Your task to perform on an android device: Clear the shopping cart on amazon.com. Add lenovo thinkpad to the cart on amazon.com, then select checkout. Image 0: 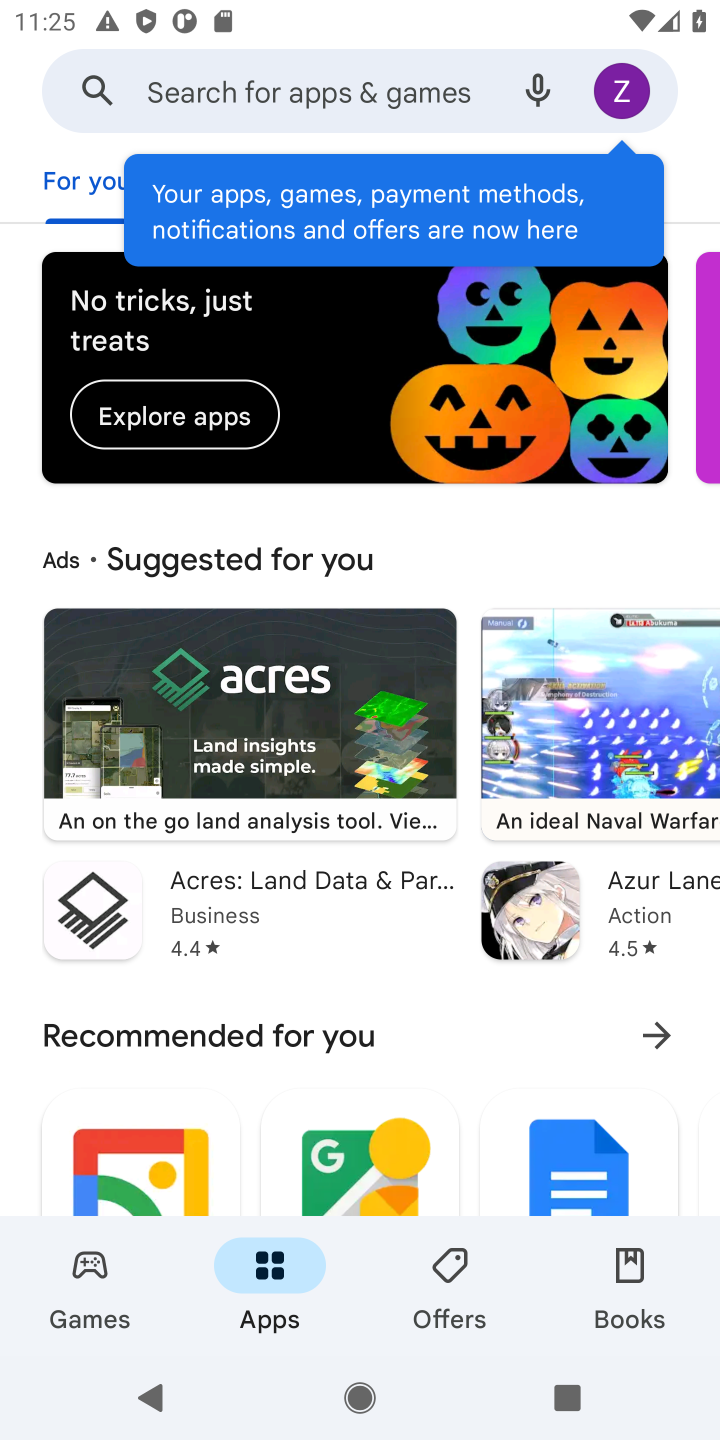
Step 0: press home button
Your task to perform on an android device: Clear the shopping cart on amazon.com. Add lenovo thinkpad to the cart on amazon.com, then select checkout. Image 1: 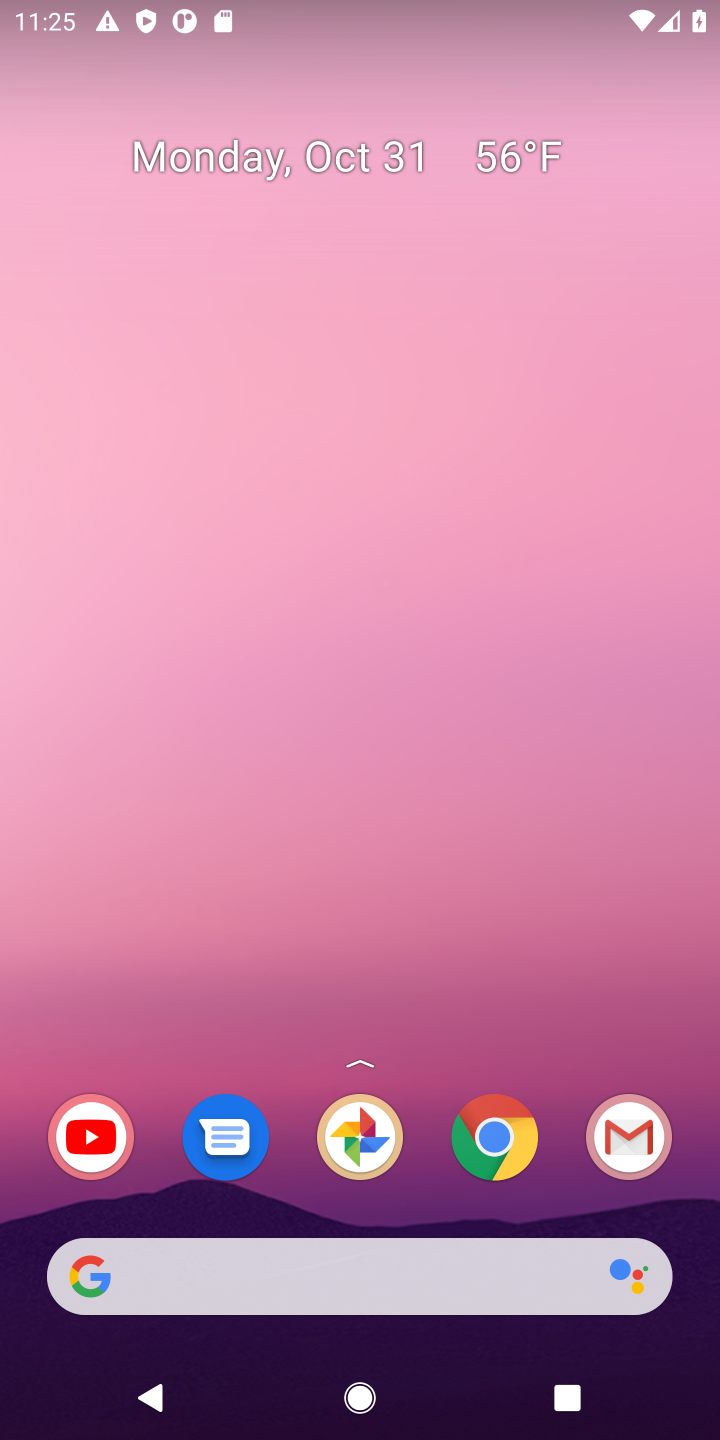
Step 1: click (492, 1137)
Your task to perform on an android device: Clear the shopping cart on amazon.com. Add lenovo thinkpad to the cart on amazon.com, then select checkout. Image 2: 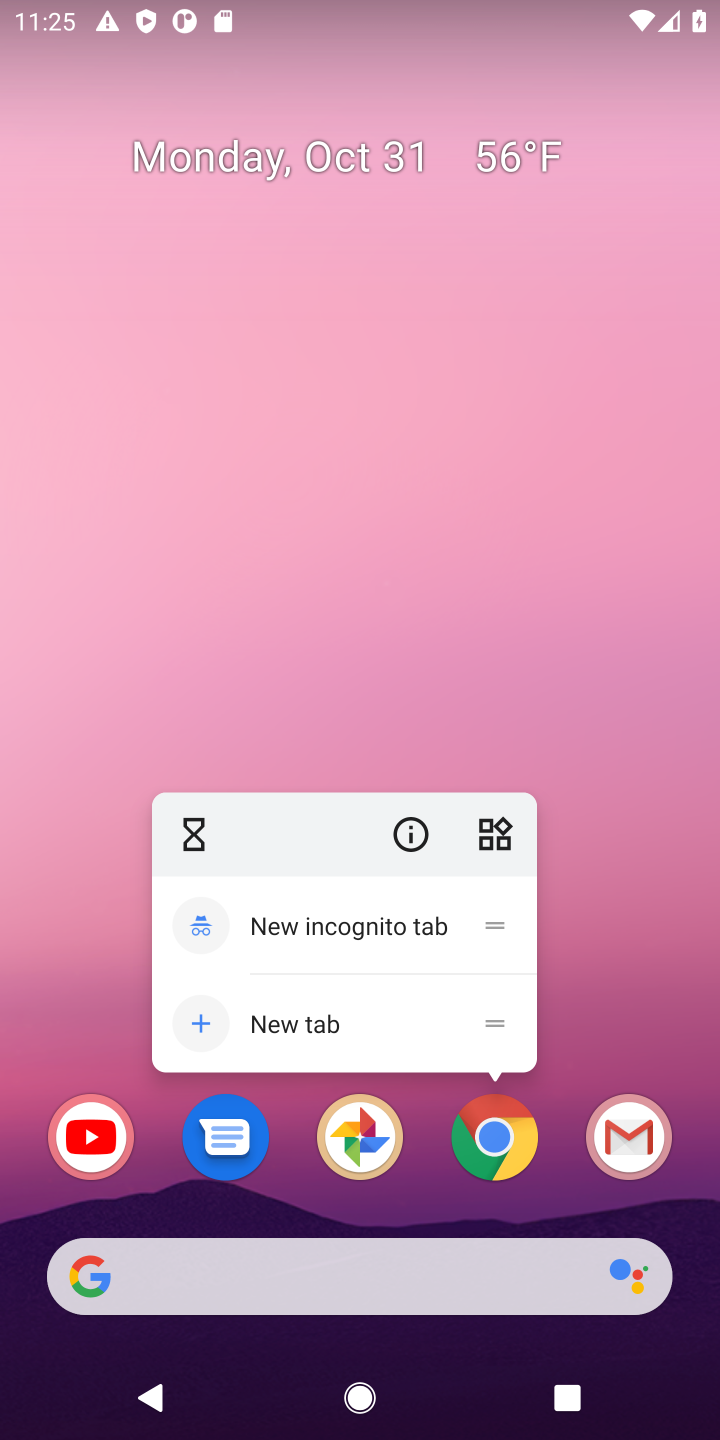
Step 2: click (497, 1137)
Your task to perform on an android device: Clear the shopping cart on amazon.com. Add lenovo thinkpad to the cart on amazon.com, then select checkout. Image 3: 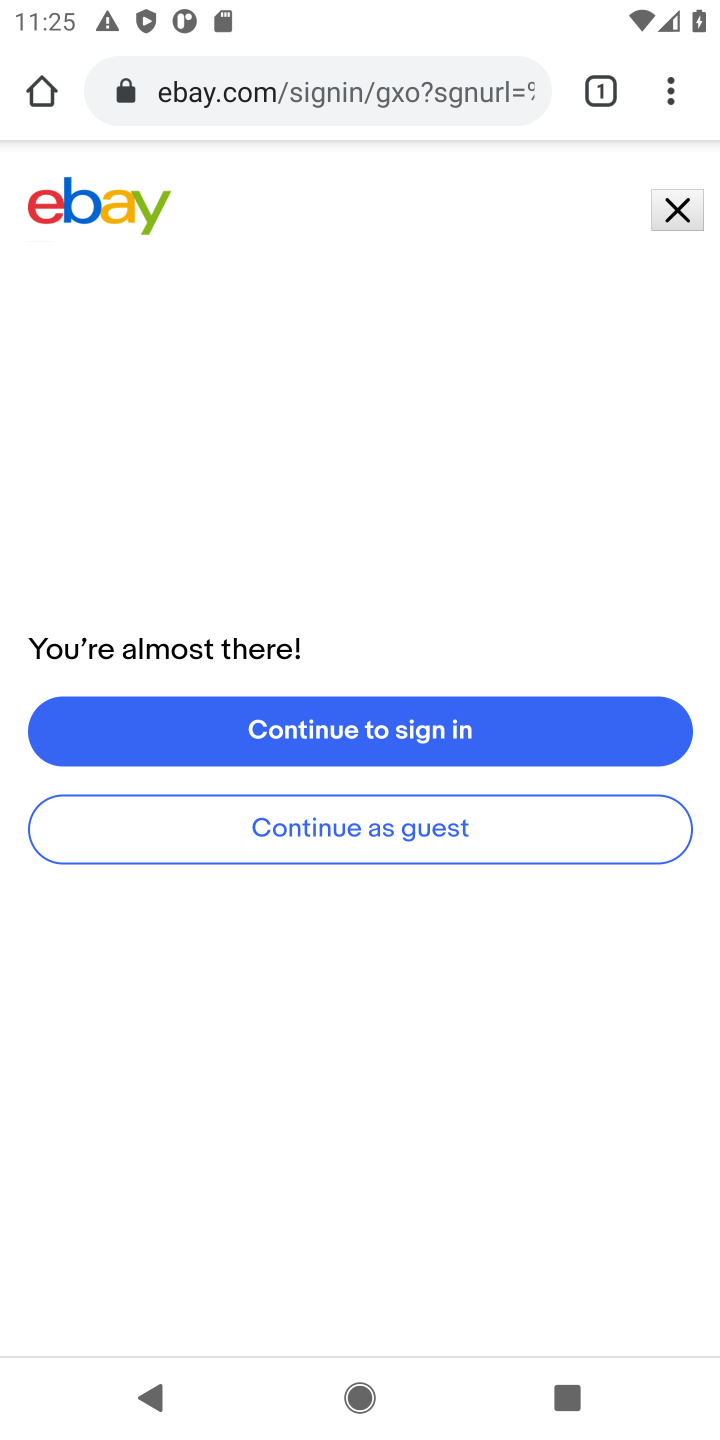
Step 3: click (384, 99)
Your task to perform on an android device: Clear the shopping cart on amazon.com. Add lenovo thinkpad to the cart on amazon.com, then select checkout. Image 4: 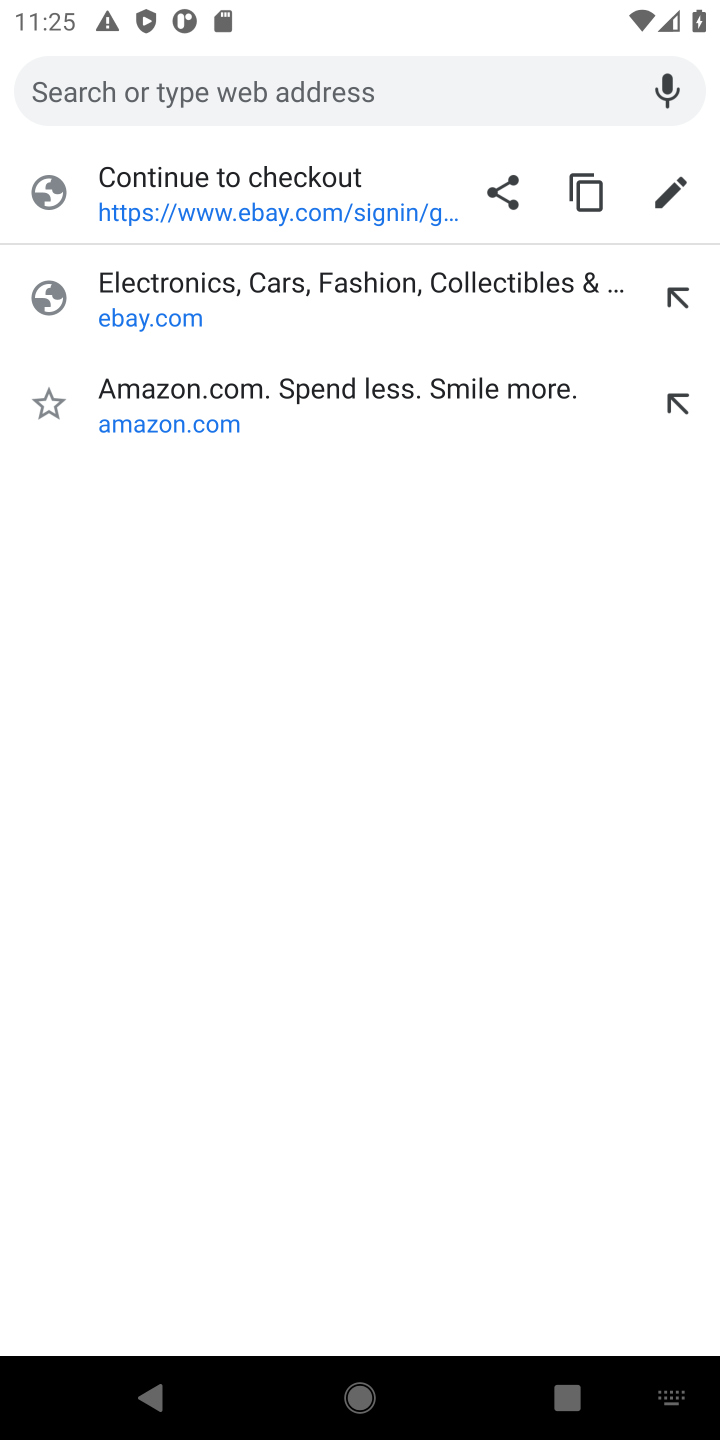
Step 4: type "amazon.com"
Your task to perform on an android device: Clear the shopping cart on amazon.com. Add lenovo thinkpad to the cart on amazon.com, then select checkout. Image 5: 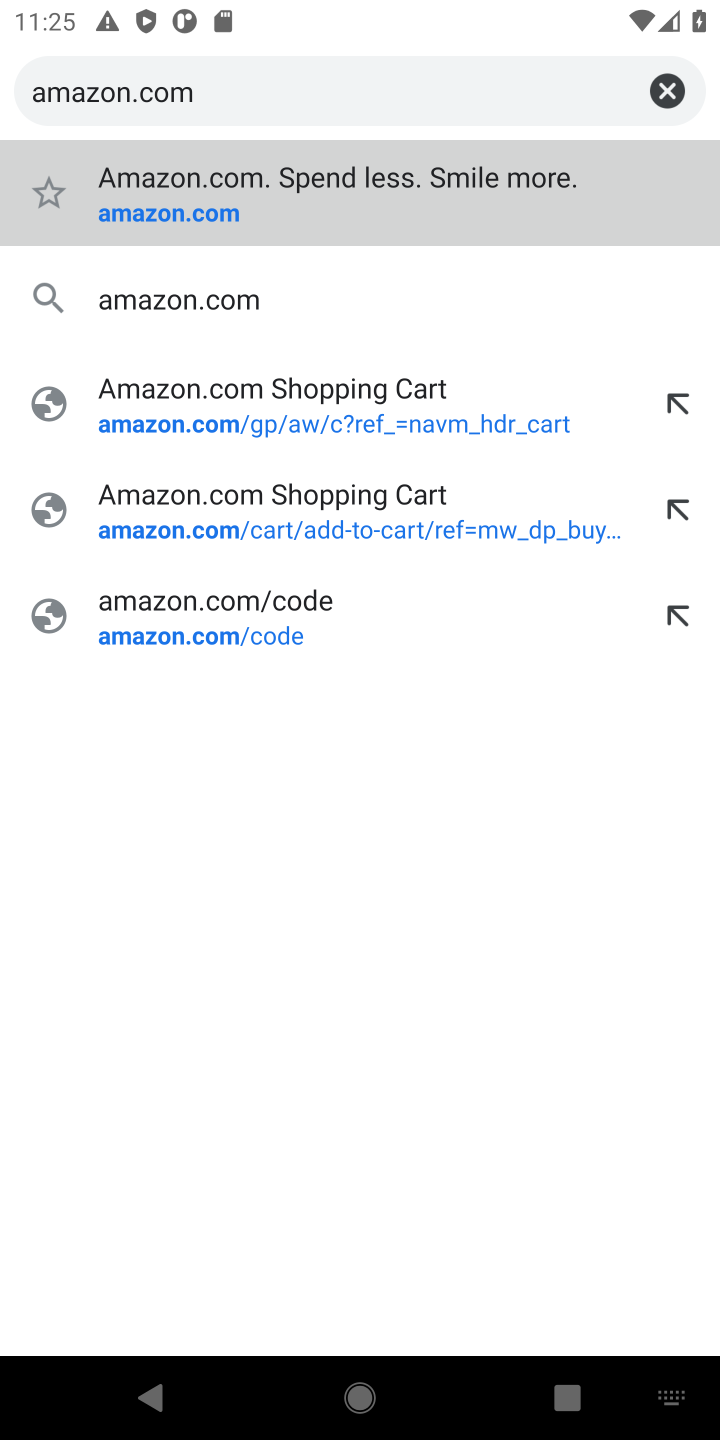
Step 5: click (198, 305)
Your task to perform on an android device: Clear the shopping cart on amazon.com. Add lenovo thinkpad to the cart on amazon.com, then select checkout. Image 6: 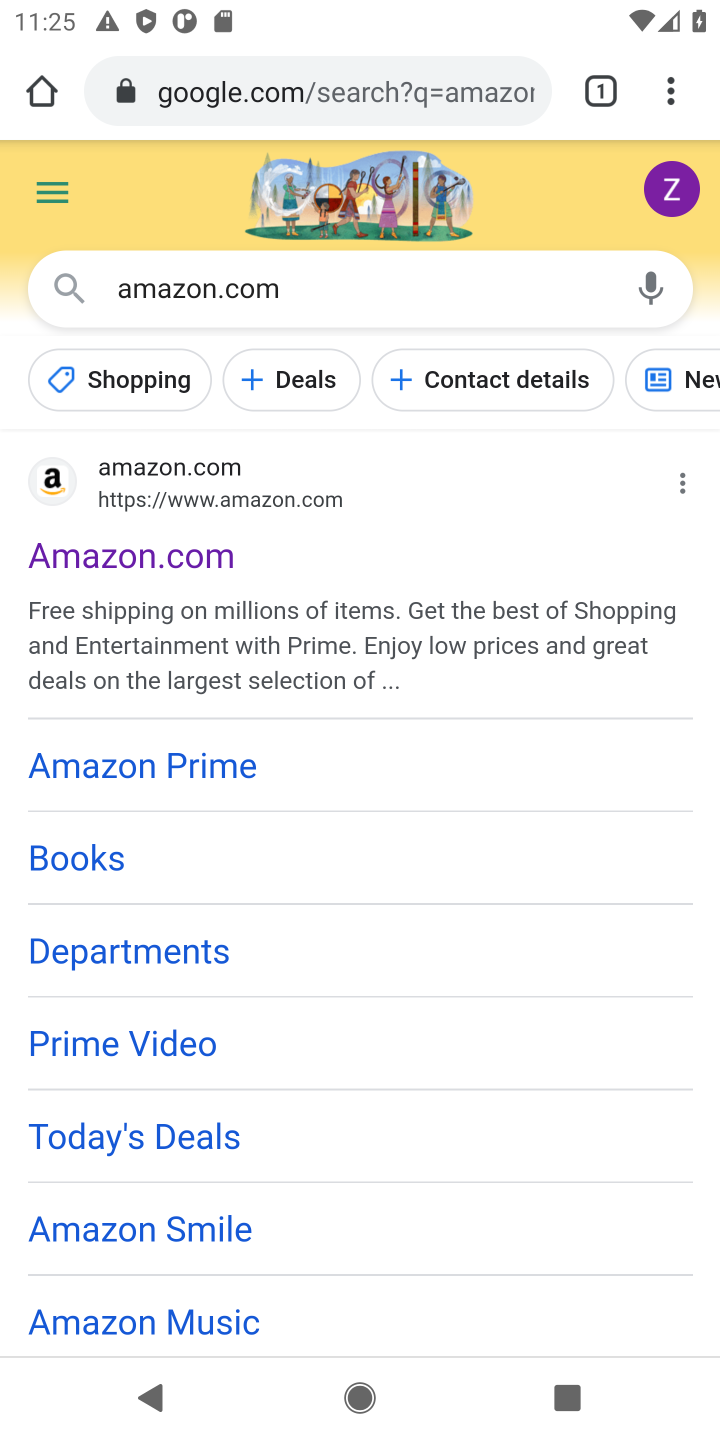
Step 6: click (208, 569)
Your task to perform on an android device: Clear the shopping cart on amazon.com. Add lenovo thinkpad to the cart on amazon.com, then select checkout. Image 7: 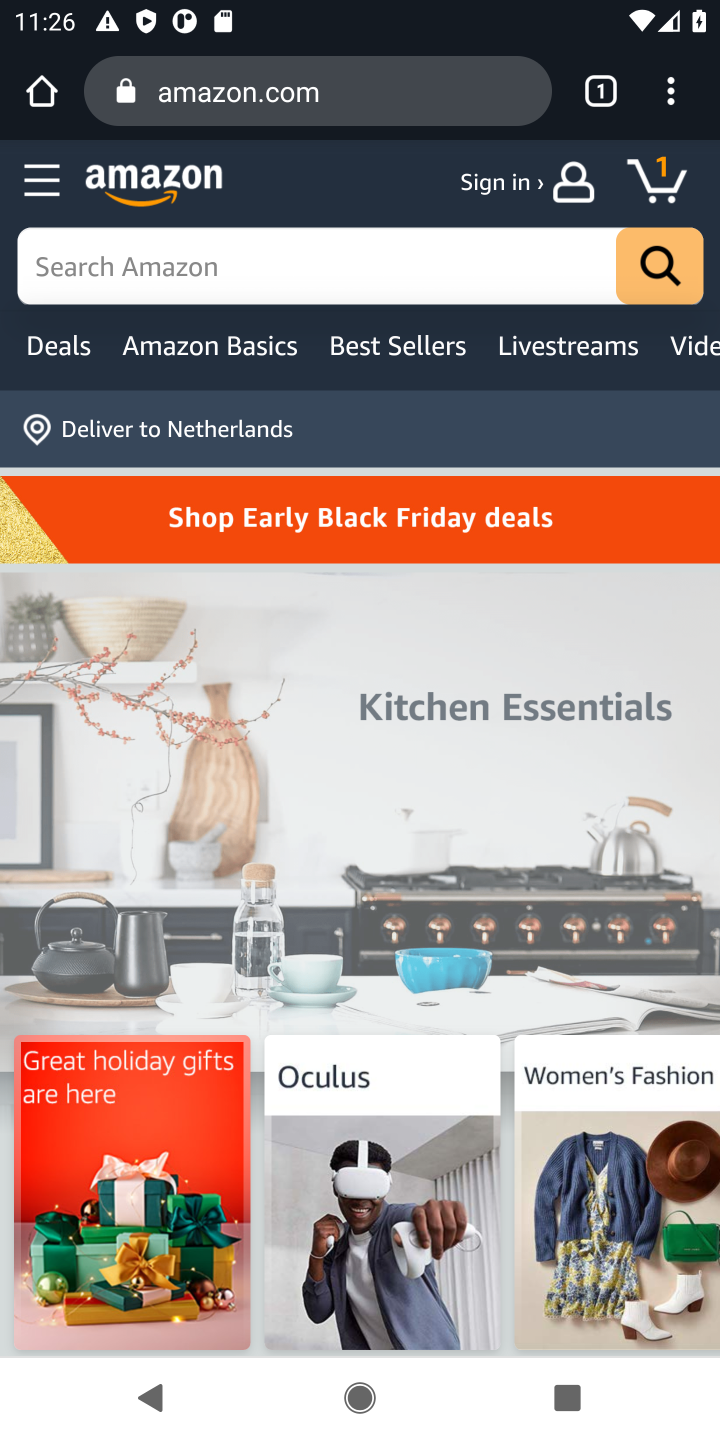
Step 7: click (656, 178)
Your task to perform on an android device: Clear the shopping cart on amazon.com. Add lenovo thinkpad to the cart on amazon.com, then select checkout. Image 8: 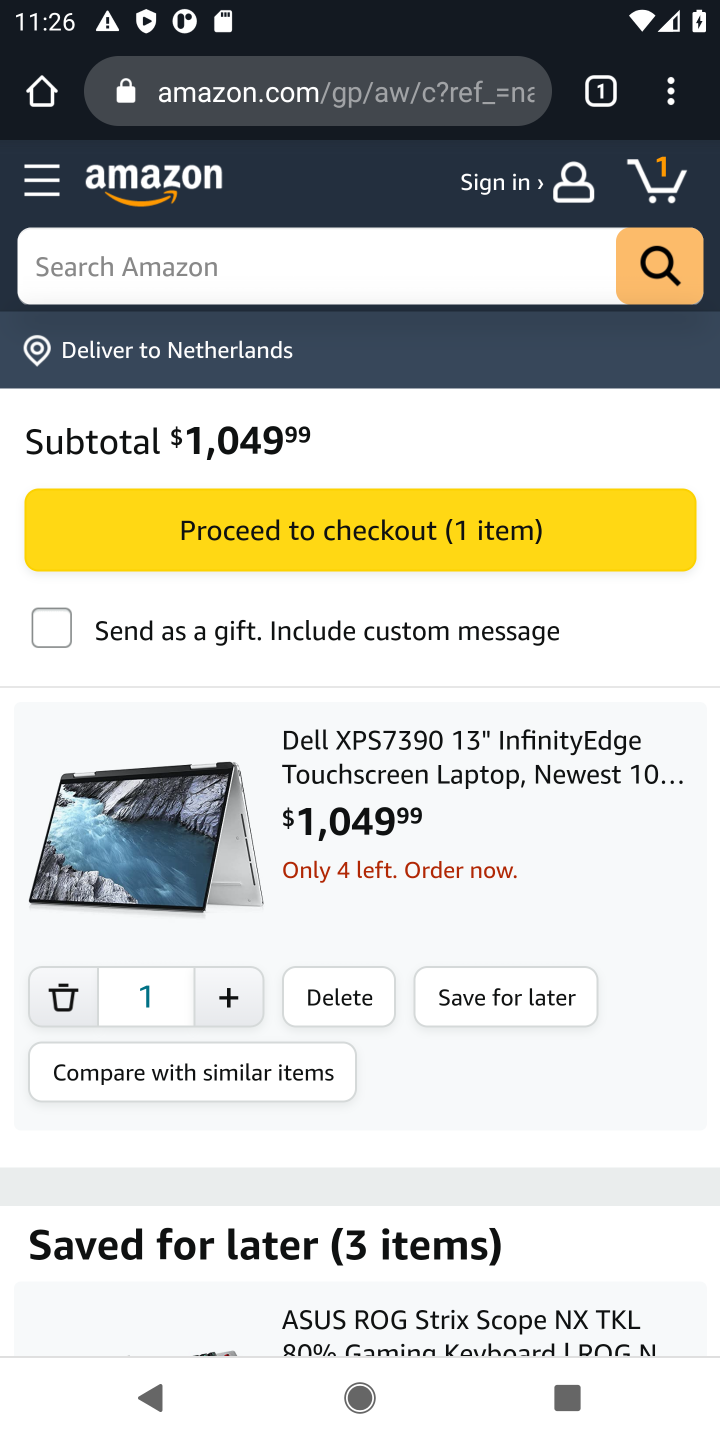
Step 8: click (358, 1000)
Your task to perform on an android device: Clear the shopping cart on amazon.com. Add lenovo thinkpad to the cart on amazon.com, then select checkout. Image 9: 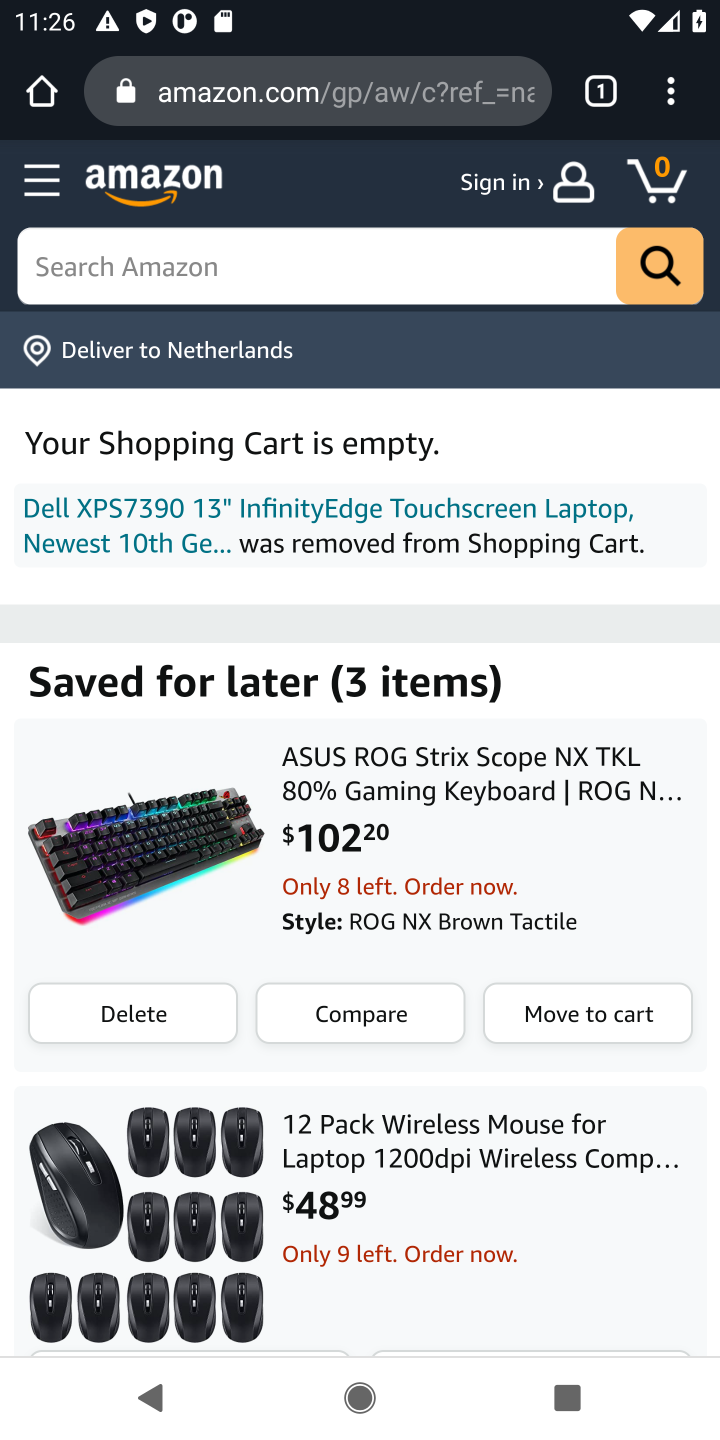
Step 9: click (506, 272)
Your task to perform on an android device: Clear the shopping cart on amazon.com. Add lenovo thinkpad to the cart on amazon.com, then select checkout. Image 10: 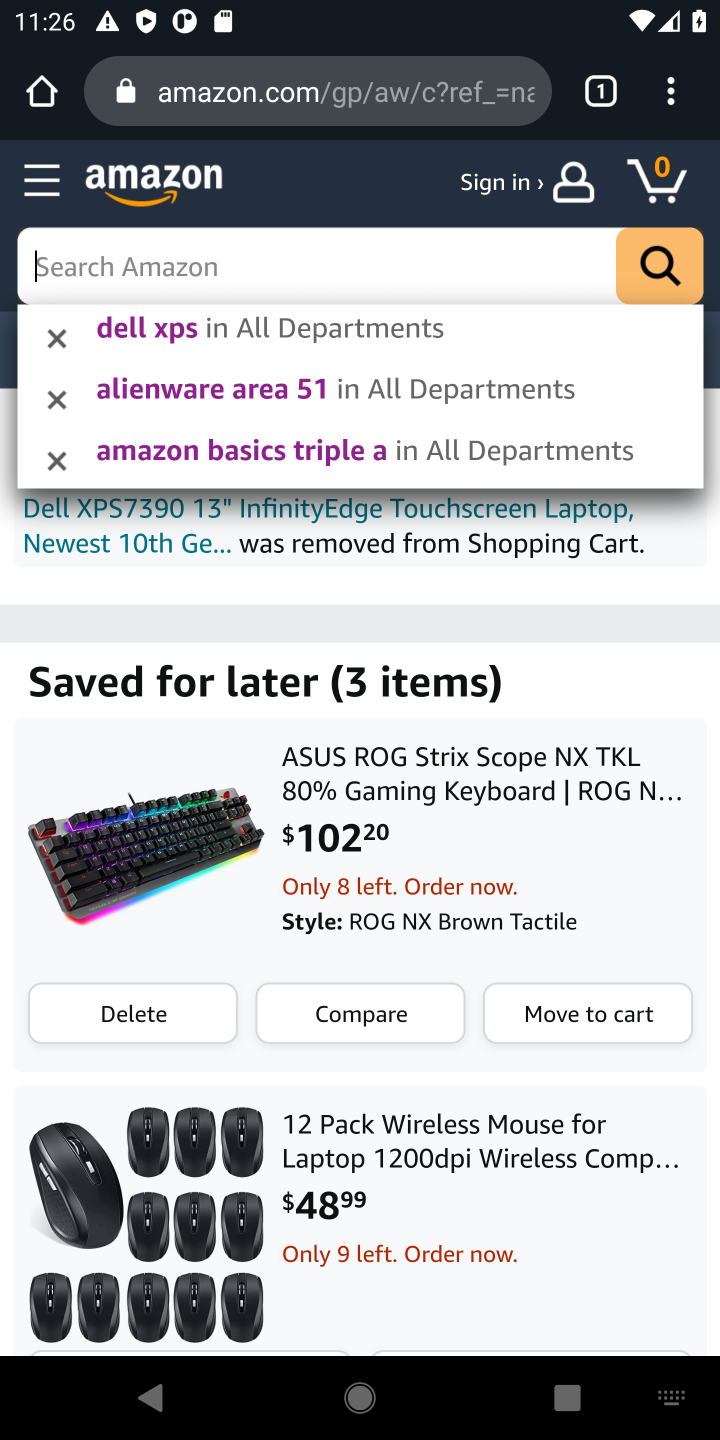
Step 10: type "lenovo thinkpad "
Your task to perform on an android device: Clear the shopping cart on amazon.com. Add lenovo thinkpad to the cart on amazon.com, then select checkout. Image 11: 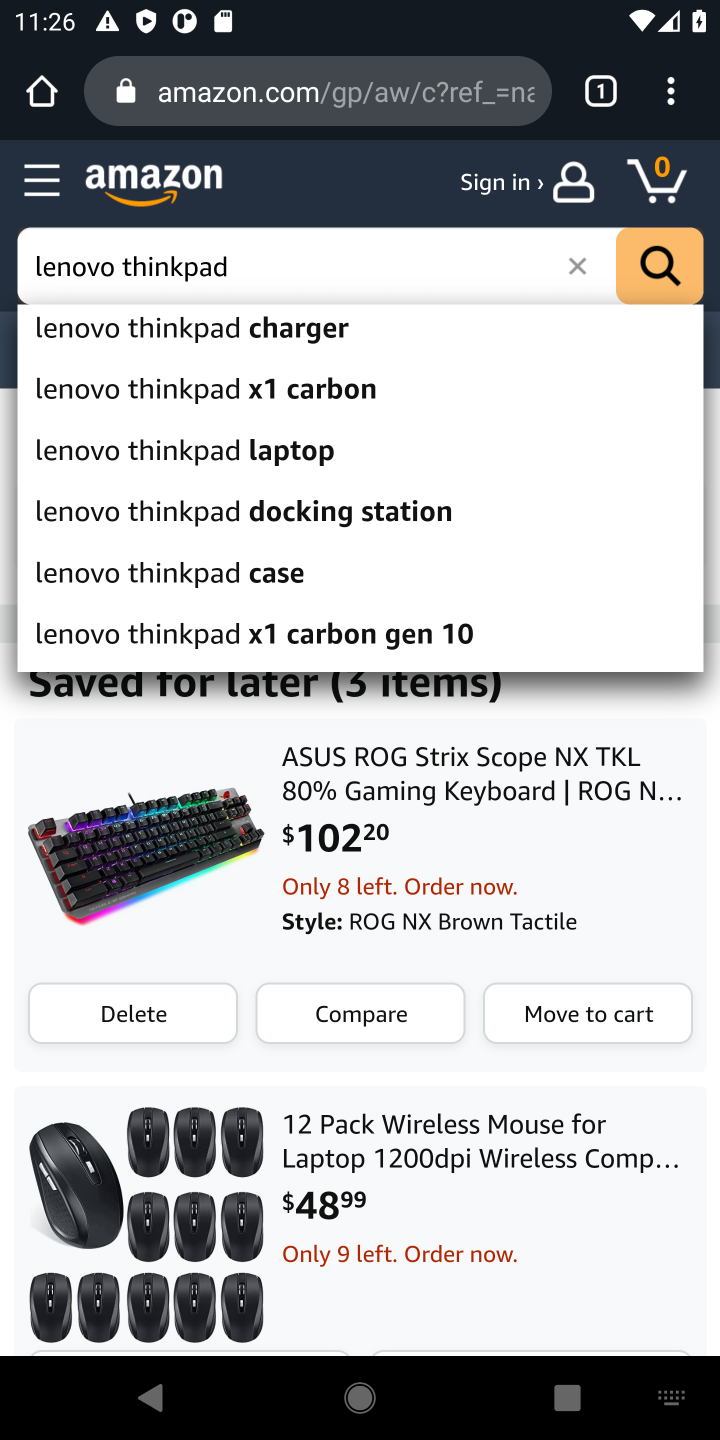
Step 11: click (656, 268)
Your task to perform on an android device: Clear the shopping cart on amazon.com. Add lenovo thinkpad to the cart on amazon.com, then select checkout. Image 12: 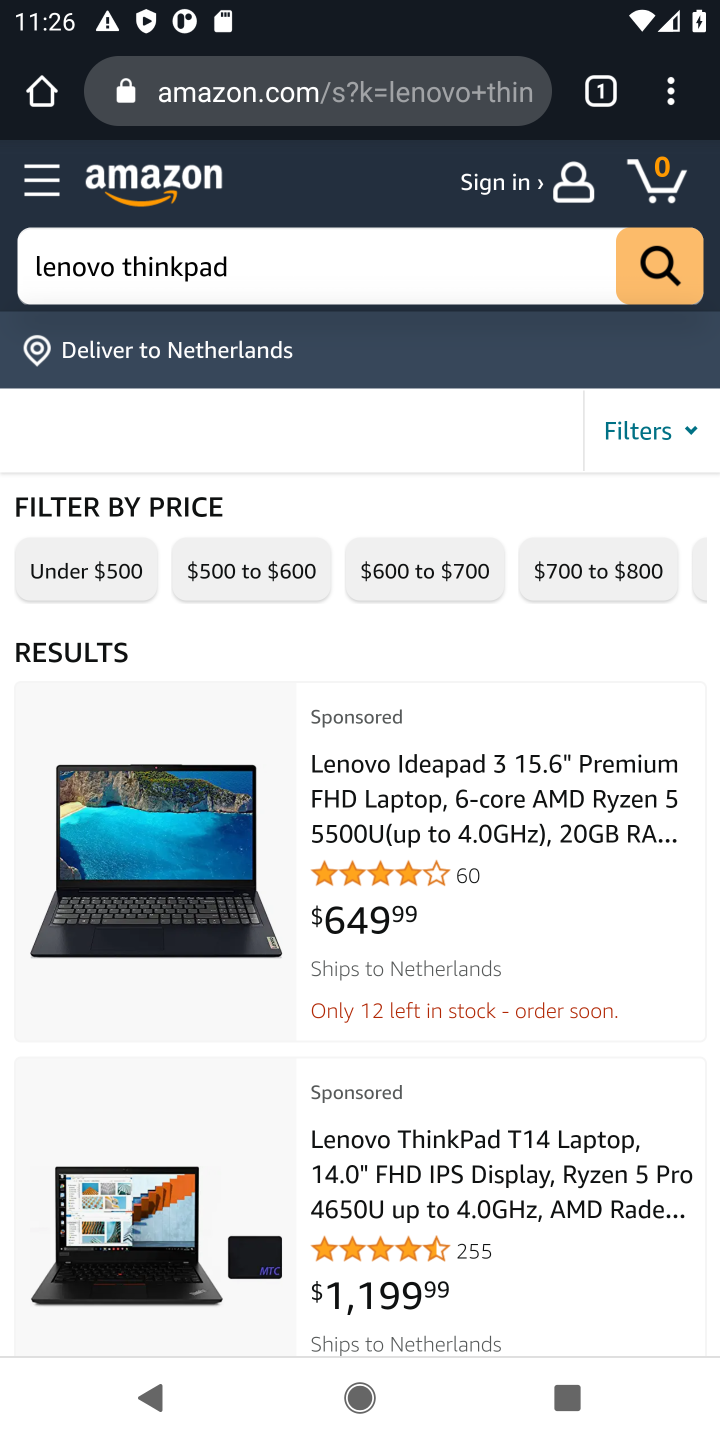
Step 12: click (479, 1147)
Your task to perform on an android device: Clear the shopping cart on amazon.com. Add lenovo thinkpad to the cart on amazon.com, then select checkout. Image 13: 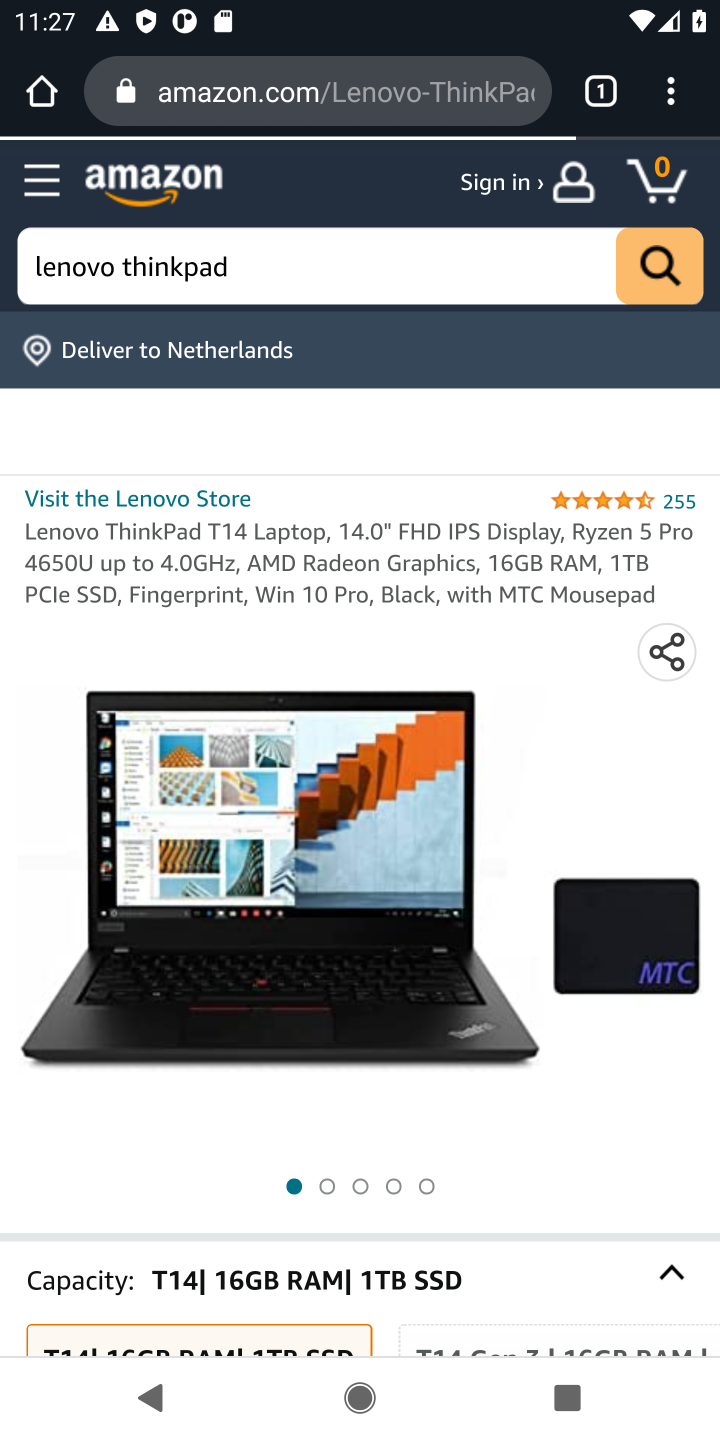
Step 13: drag from (495, 1199) to (463, 496)
Your task to perform on an android device: Clear the shopping cart on amazon.com. Add lenovo thinkpad to the cart on amazon.com, then select checkout. Image 14: 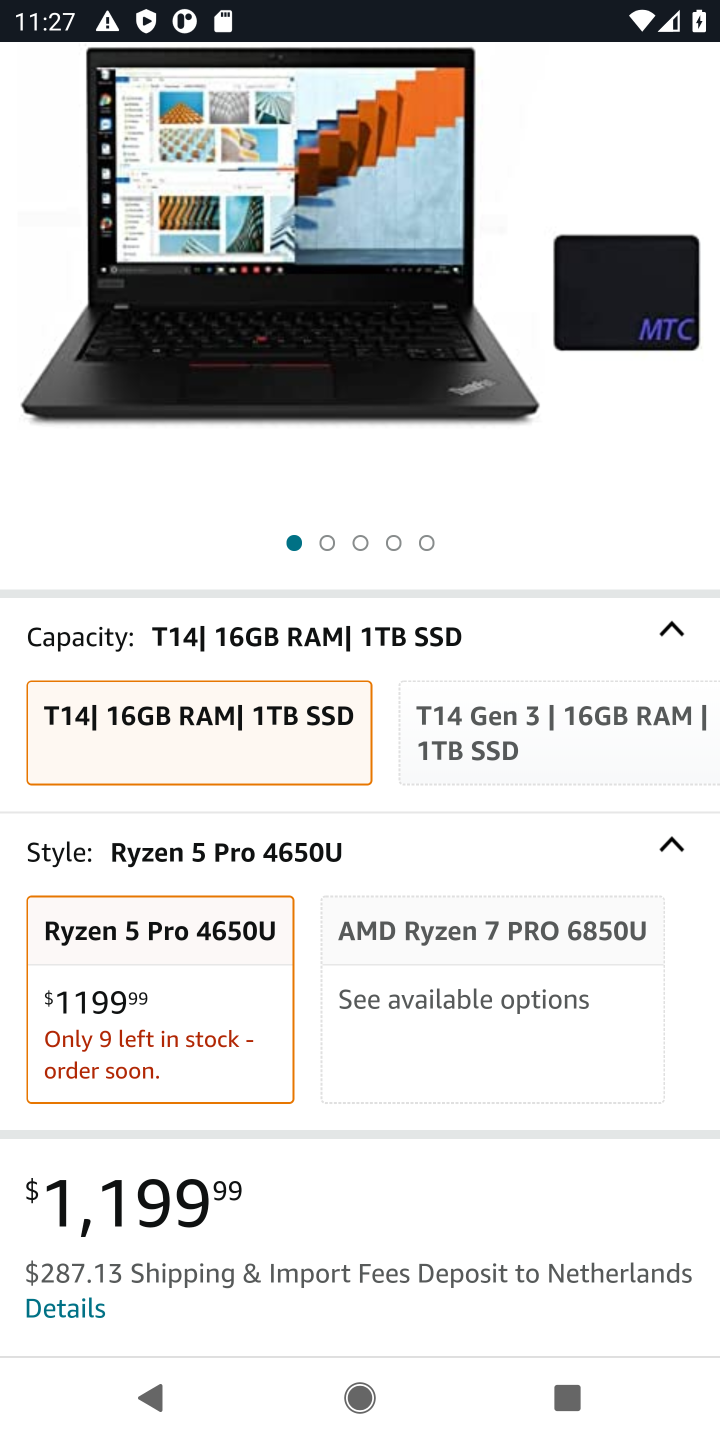
Step 14: drag from (463, 1173) to (503, 650)
Your task to perform on an android device: Clear the shopping cart on amazon.com. Add lenovo thinkpad to the cart on amazon.com, then select checkout. Image 15: 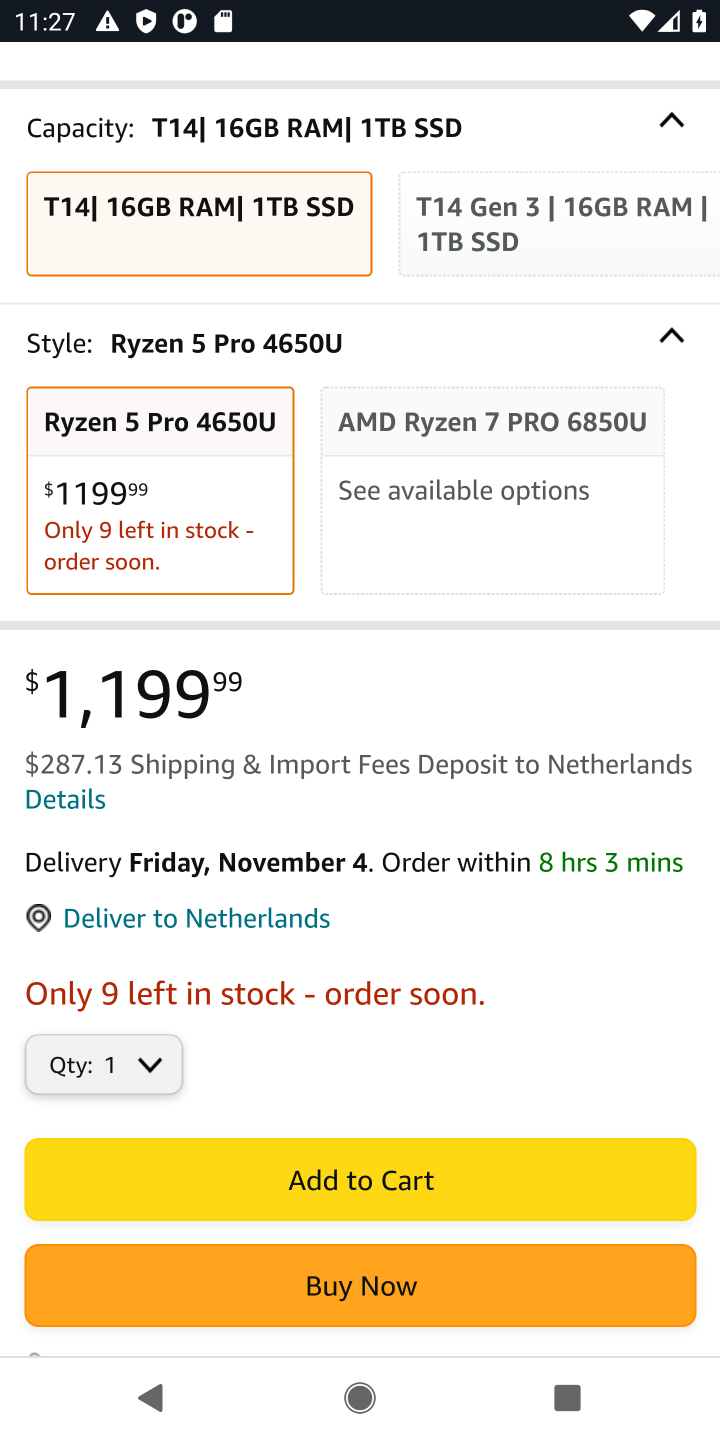
Step 15: click (375, 1184)
Your task to perform on an android device: Clear the shopping cart on amazon.com. Add lenovo thinkpad to the cart on amazon.com, then select checkout. Image 16: 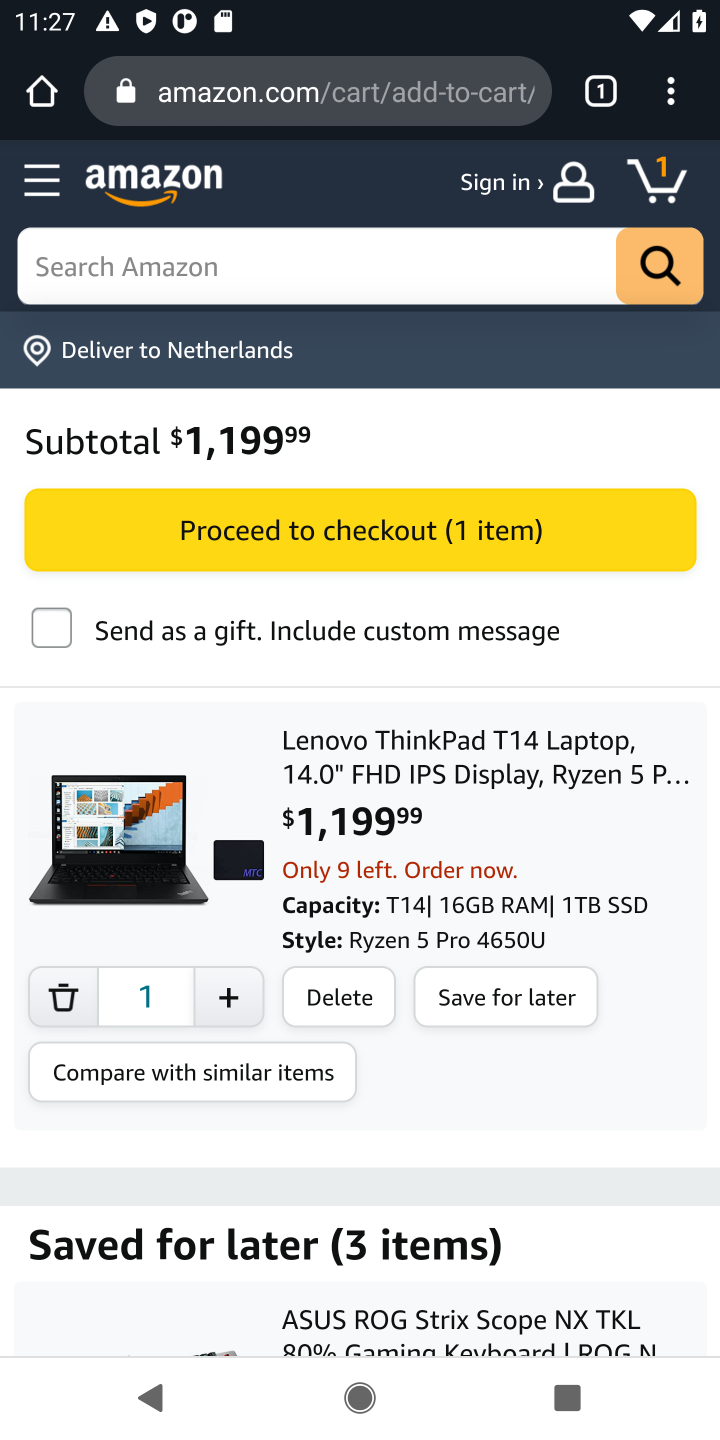
Step 16: click (408, 532)
Your task to perform on an android device: Clear the shopping cart on amazon.com. Add lenovo thinkpad to the cart on amazon.com, then select checkout. Image 17: 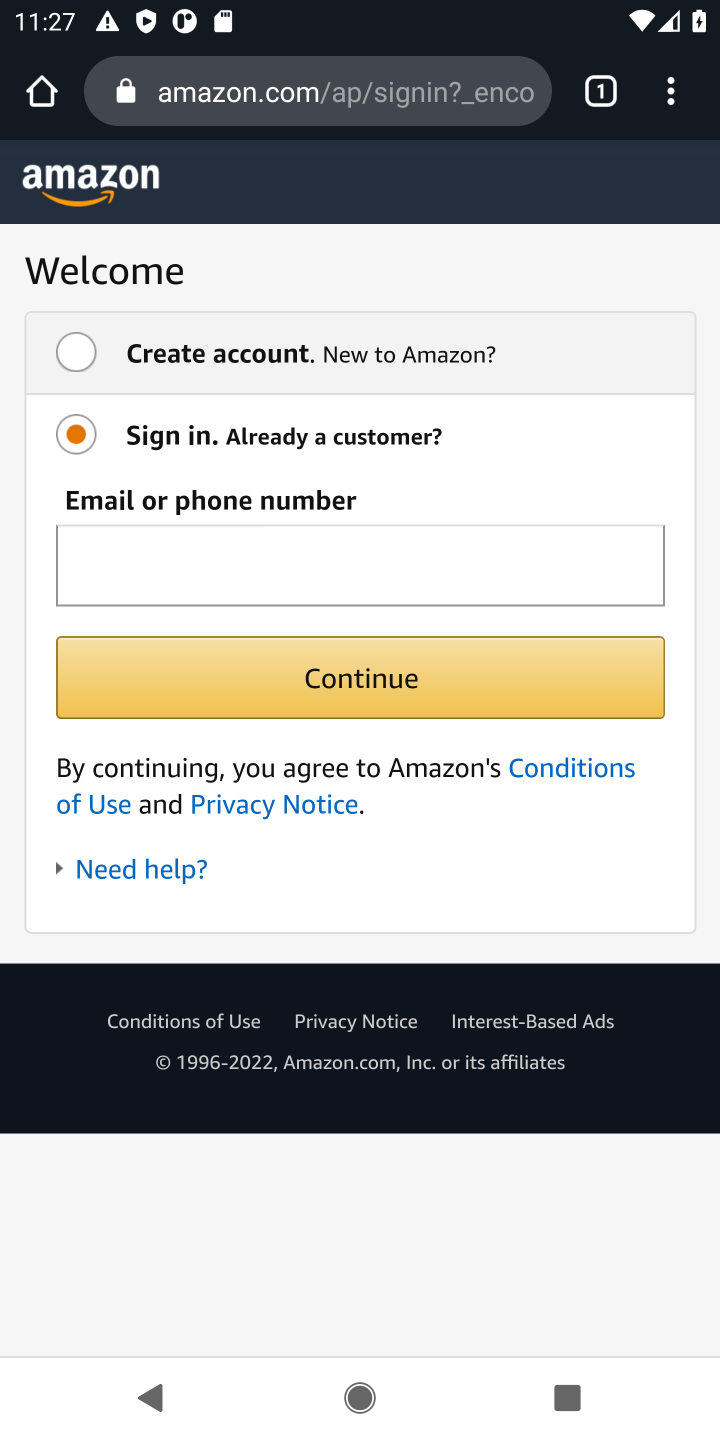
Step 17: task complete